Your task to perform on an android device: visit the assistant section in the google photos Image 0: 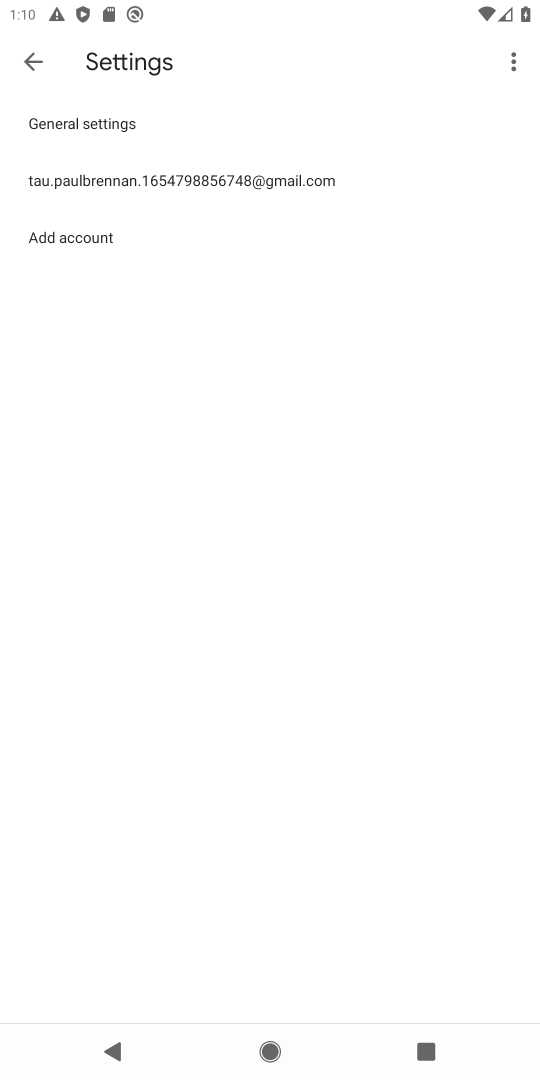
Step 0: press home button
Your task to perform on an android device: visit the assistant section in the google photos Image 1: 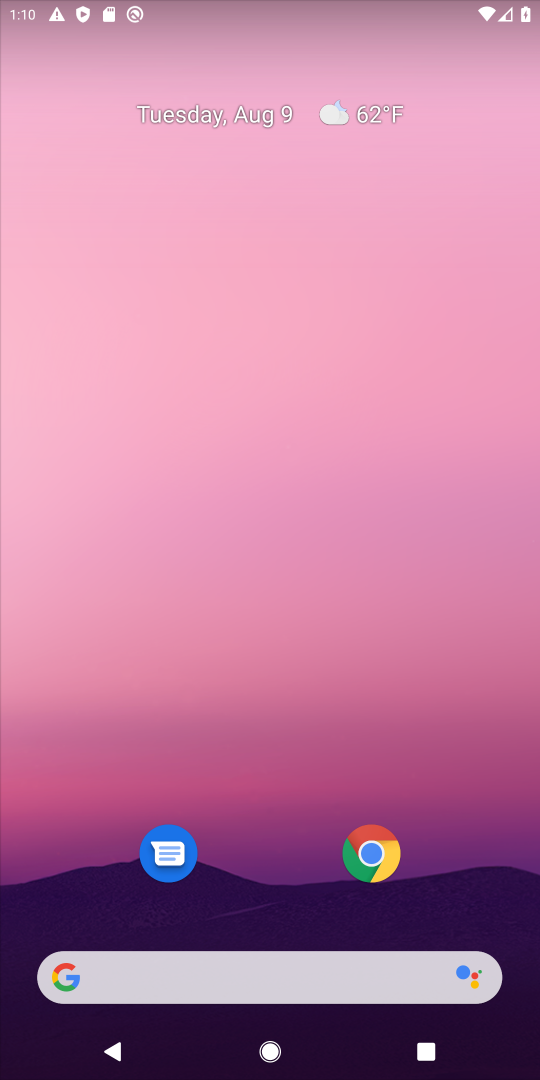
Step 1: drag from (261, 615) to (238, 51)
Your task to perform on an android device: visit the assistant section in the google photos Image 2: 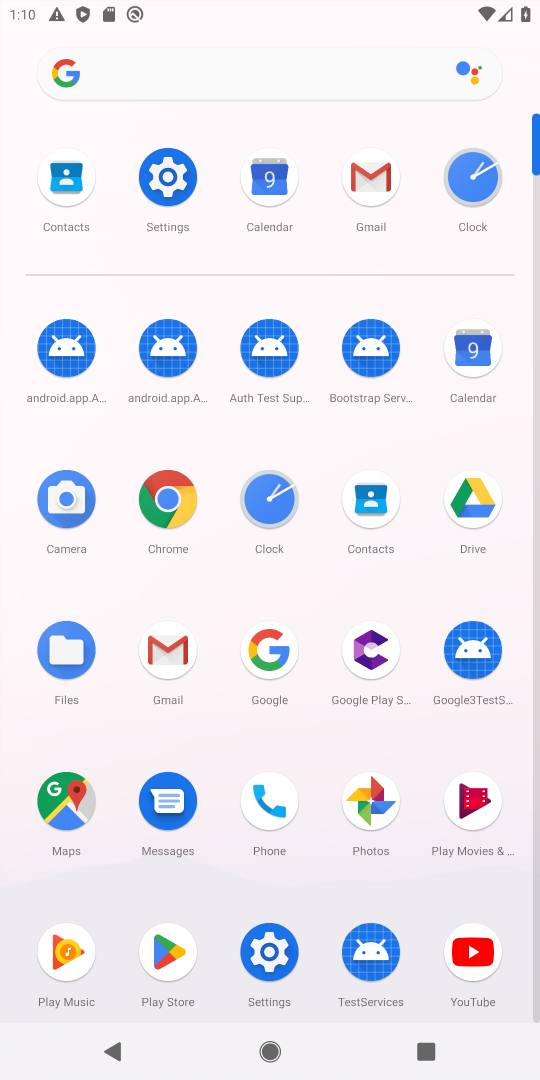
Step 2: click (360, 817)
Your task to perform on an android device: visit the assistant section in the google photos Image 3: 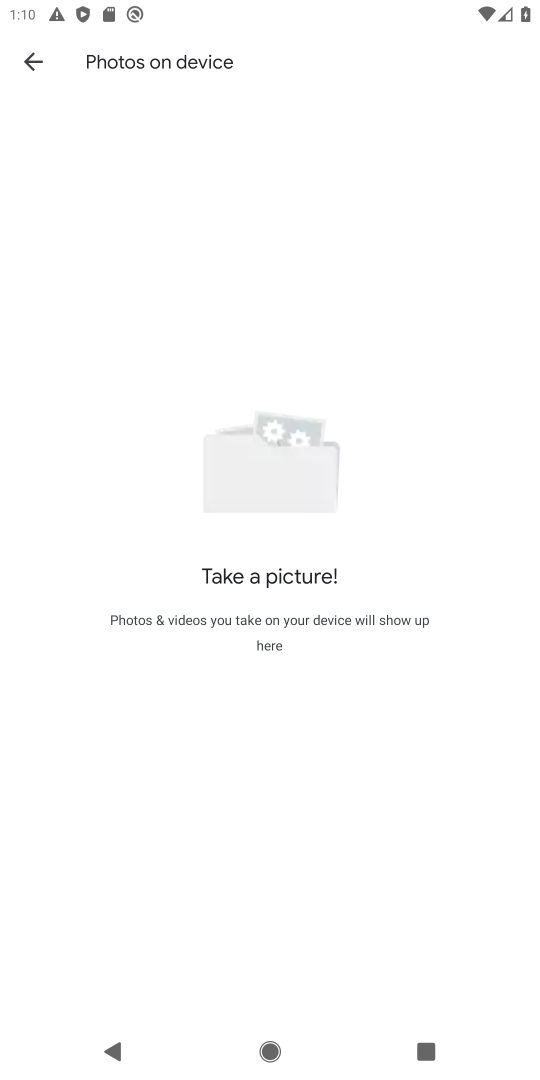
Step 3: click (17, 67)
Your task to perform on an android device: visit the assistant section in the google photos Image 4: 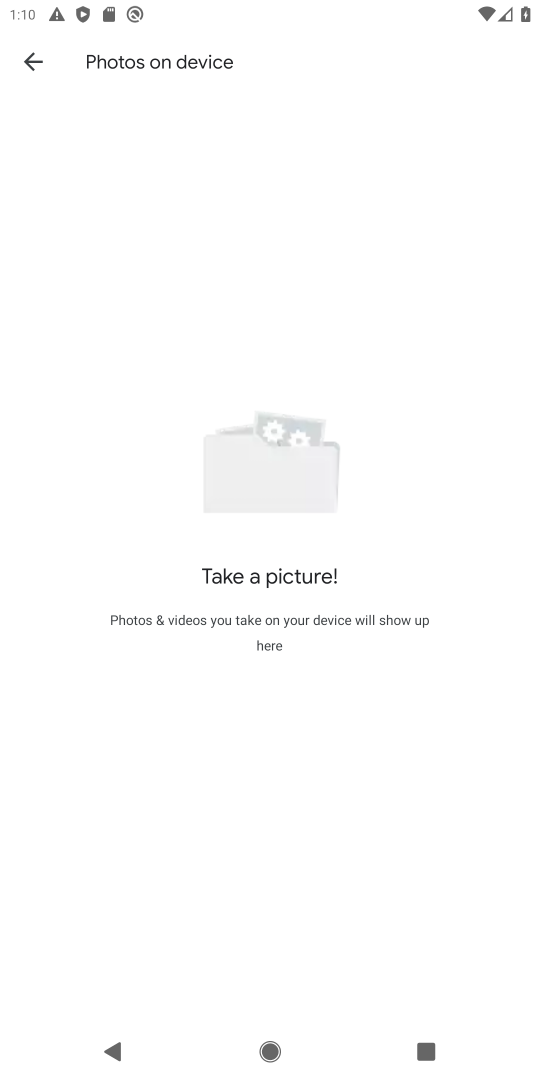
Step 4: click (26, 63)
Your task to perform on an android device: visit the assistant section in the google photos Image 5: 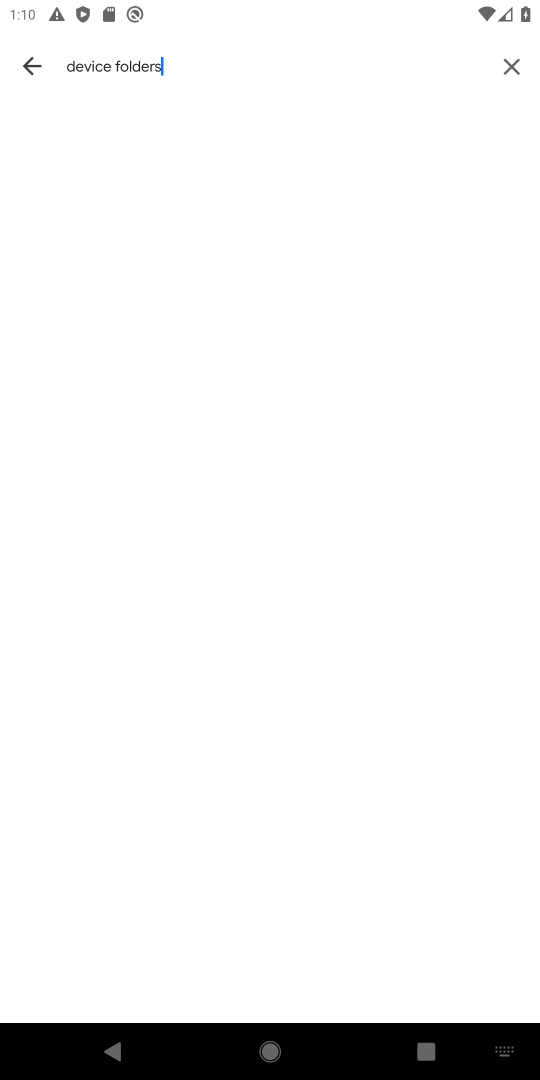
Step 5: click (20, 59)
Your task to perform on an android device: visit the assistant section in the google photos Image 6: 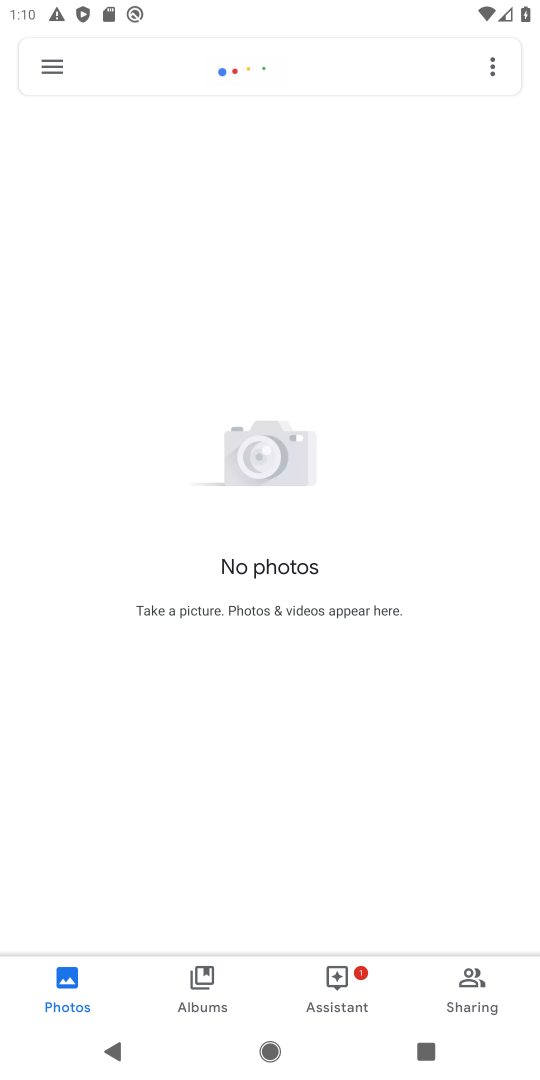
Step 6: click (323, 966)
Your task to perform on an android device: visit the assistant section in the google photos Image 7: 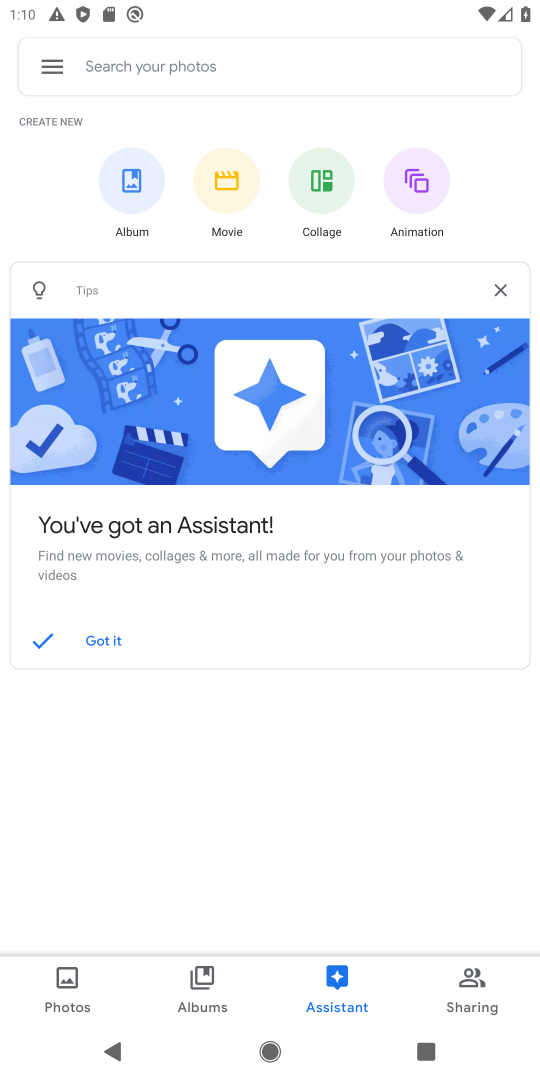
Step 7: task complete